Your task to perform on an android device: Toggle the flashlight Image 0: 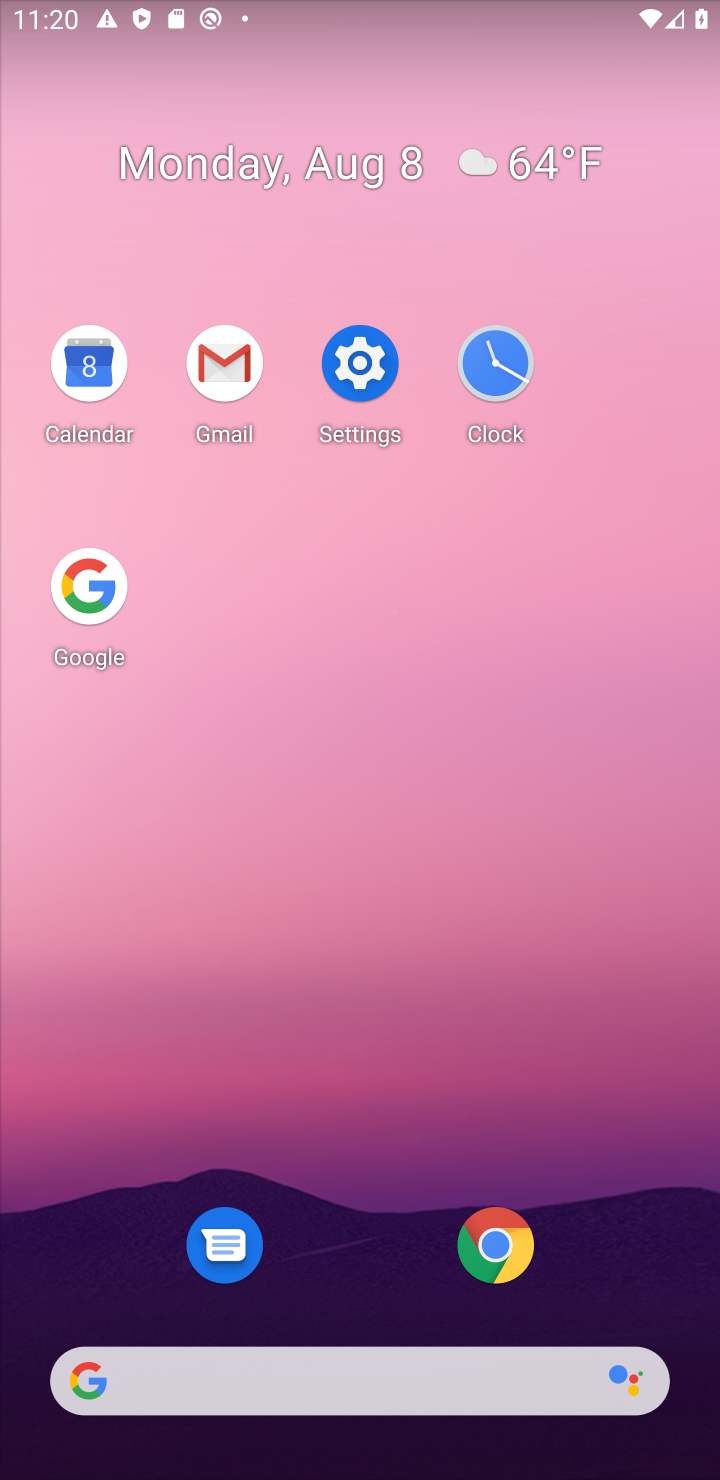
Step 0: drag from (375, 5) to (425, 985)
Your task to perform on an android device: Toggle the flashlight Image 1: 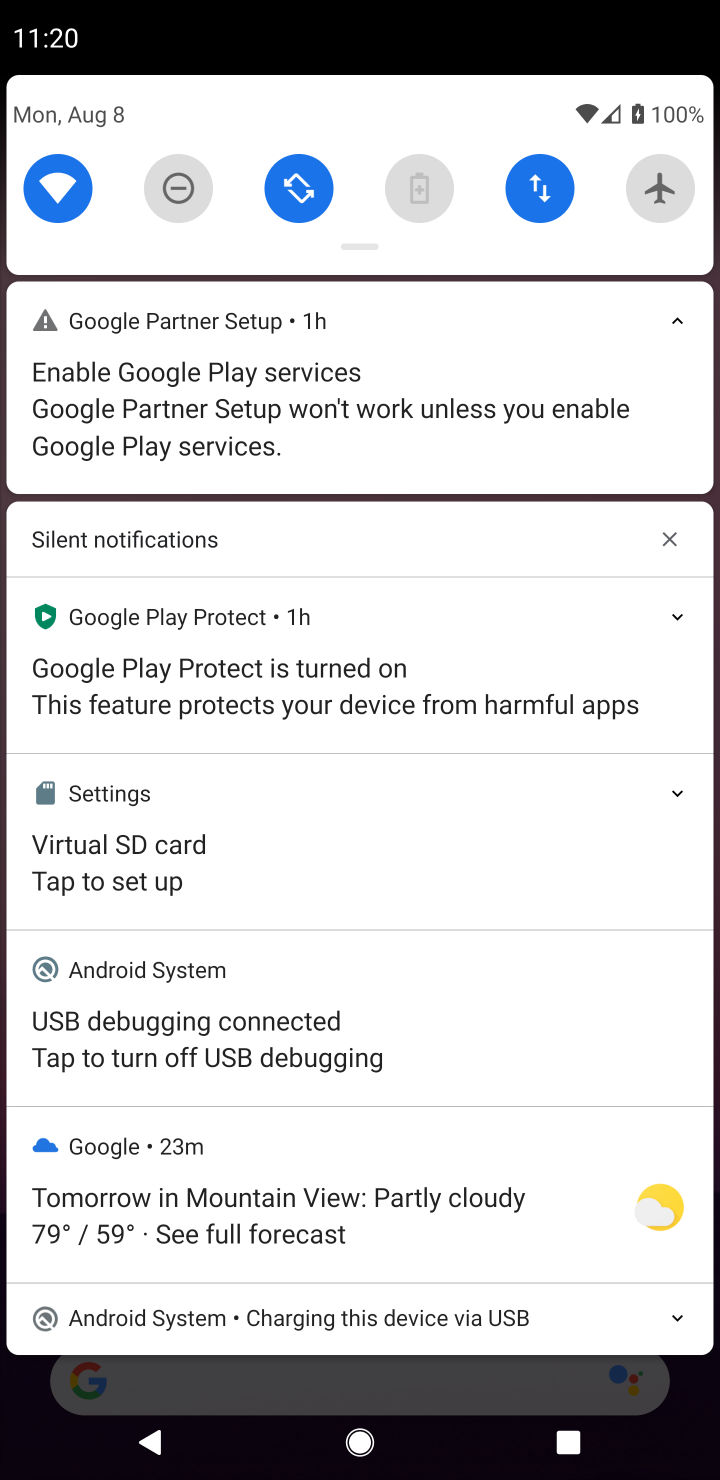
Step 1: task complete